Your task to perform on an android device: Open eBay Image 0: 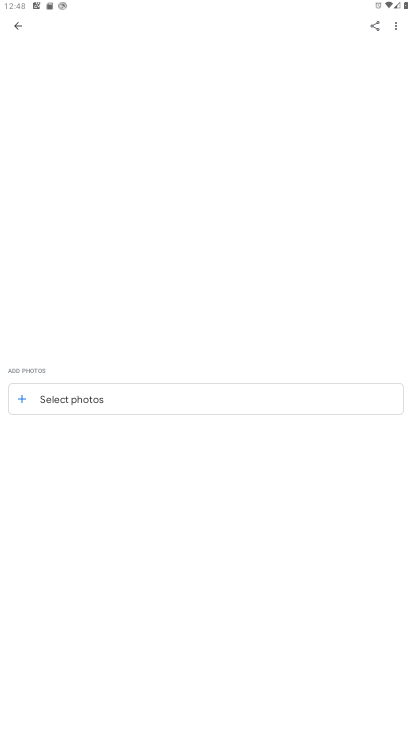
Step 0: press home button
Your task to perform on an android device: Open eBay Image 1: 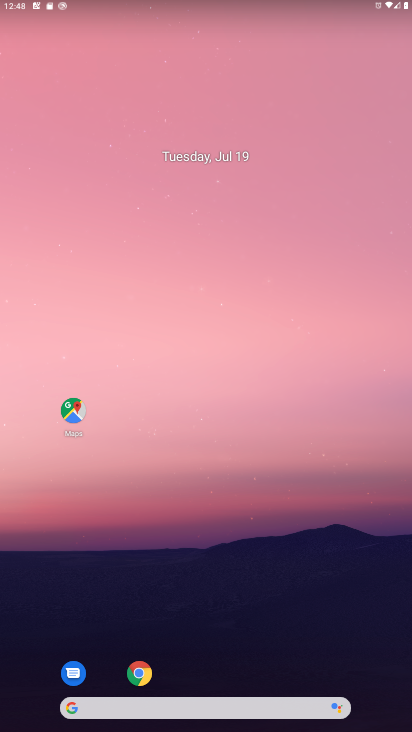
Step 1: click (150, 668)
Your task to perform on an android device: Open eBay Image 2: 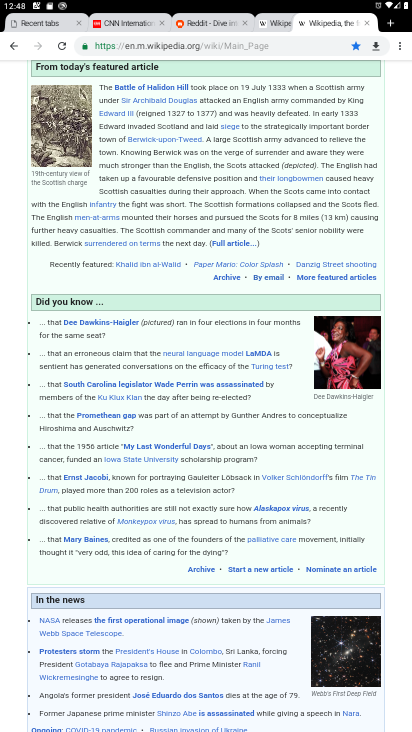
Step 2: click (386, 24)
Your task to perform on an android device: Open eBay Image 3: 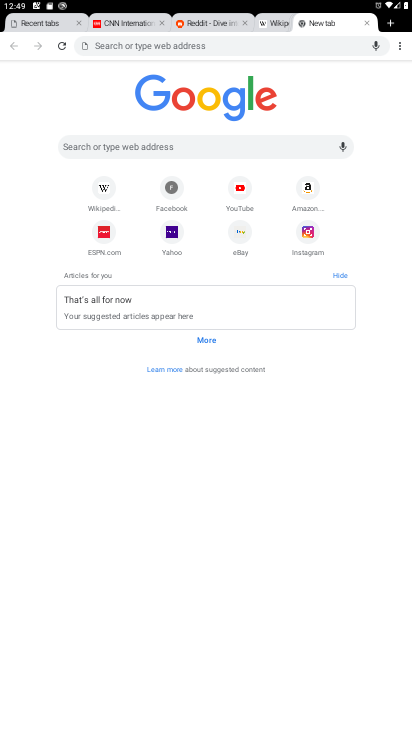
Step 3: click (249, 236)
Your task to perform on an android device: Open eBay Image 4: 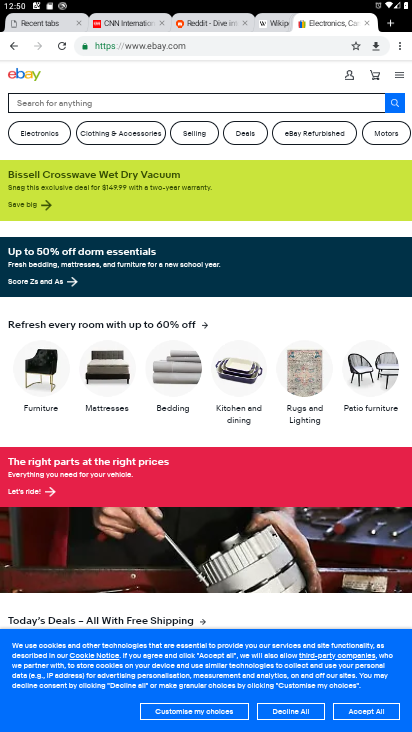
Step 4: task complete